Your task to perform on an android device: open chrome privacy settings Image 0: 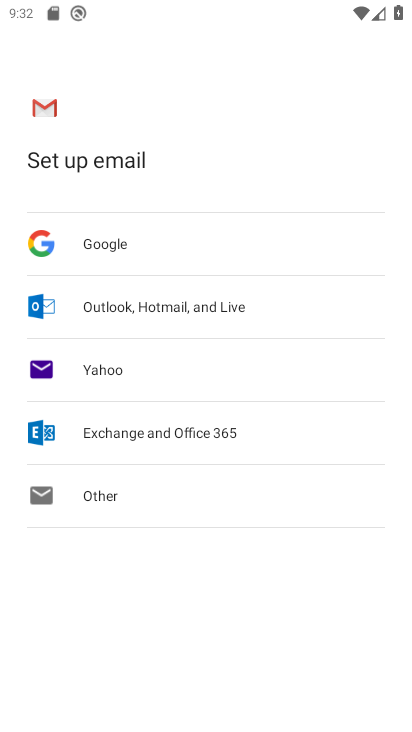
Step 0: press home button
Your task to perform on an android device: open chrome privacy settings Image 1: 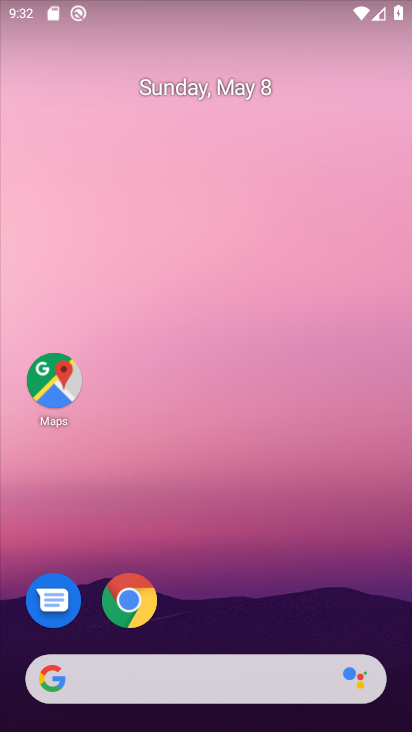
Step 1: click (134, 613)
Your task to perform on an android device: open chrome privacy settings Image 2: 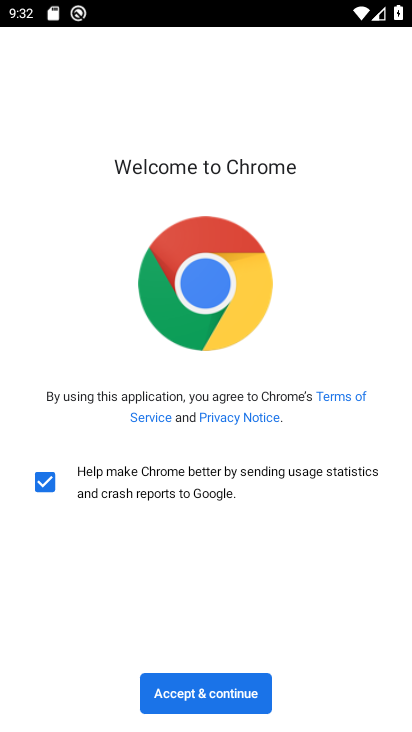
Step 2: click (253, 694)
Your task to perform on an android device: open chrome privacy settings Image 3: 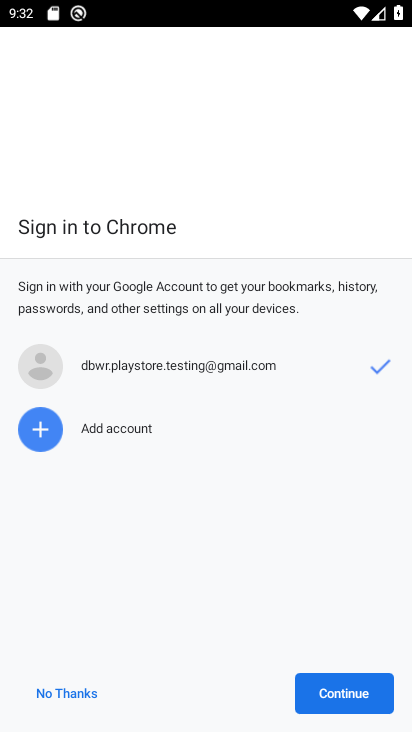
Step 3: click (296, 693)
Your task to perform on an android device: open chrome privacy settings Image 4: 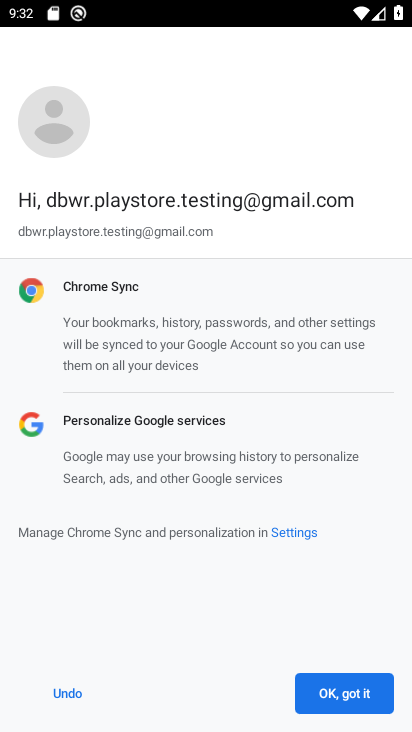
Step 4: click (329, 695)
Your task to perform on an android device: open chrome privacy settings Image 5: 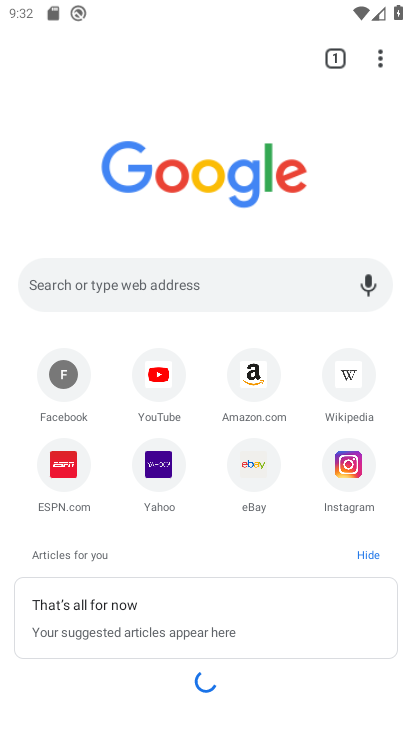
Step 5: drag from (378, 59) to (237, 499)
Your task to perform on an android device: open chrome privacy settings Image 6: 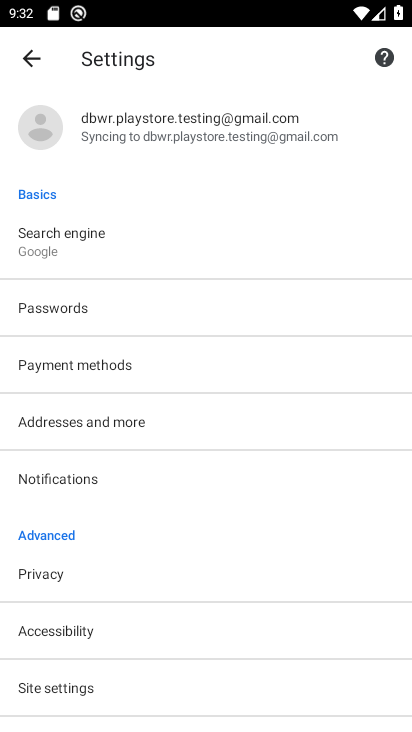
Step 6: click (48, 579)
Your task to perform on an android device: open chrome privacy settings Image 7: 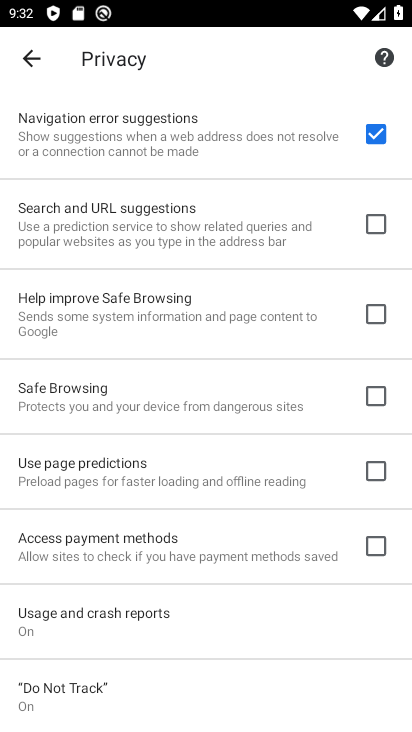
Step 7: task complete